Your task to perform on an android device: Search for the best movies of 2019  Image 0: 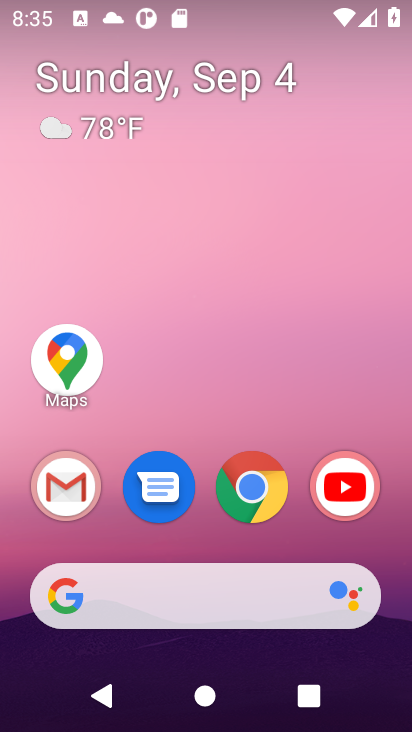
Step 0: click (243, 601)
Your task to perform on an android device: Search for the best movies of 2019  Image 1: 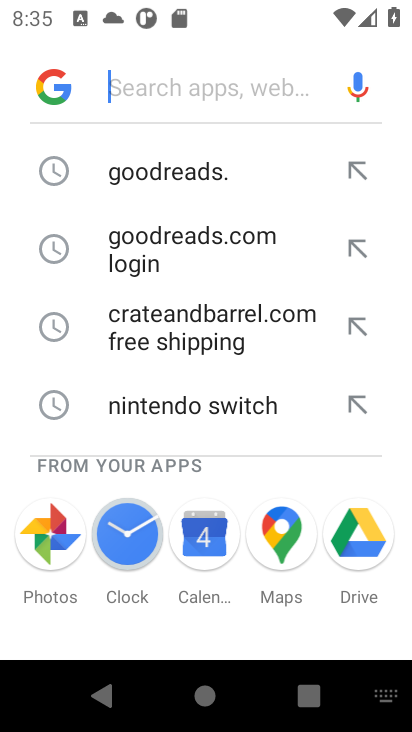
Step 1: type " best movies of 2019"
Your task to perform on an android device: Search for the best movies of 2019  Image 2: 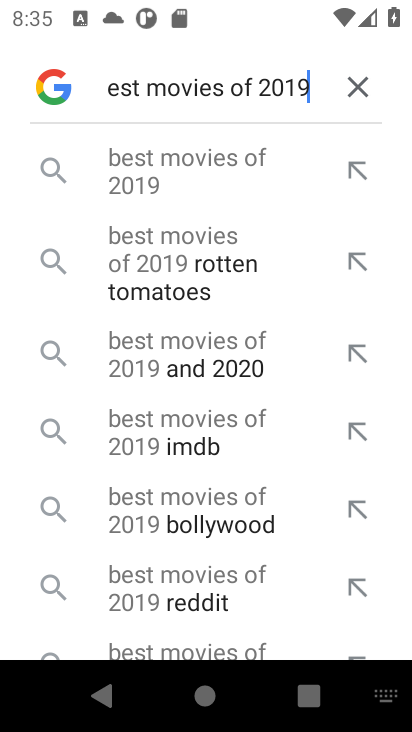
Step 2: click (167, 161)
Your task to perform on an android device: Search for the best movies of 2019  Image 3: 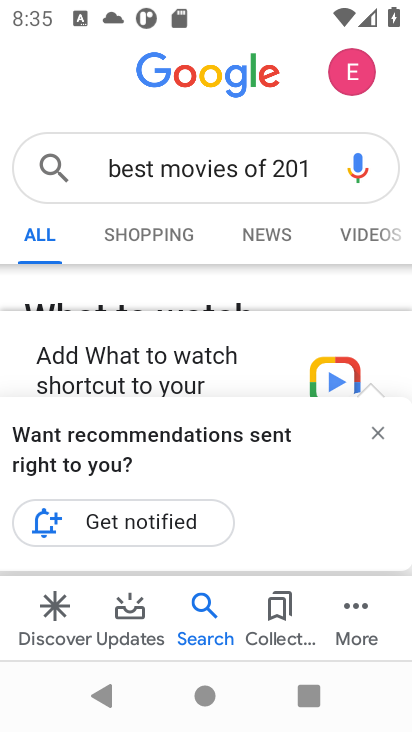
Step 3: click (377, 435)
Your task to perform on an android device: Search for the best movies of 2019  Image 4: 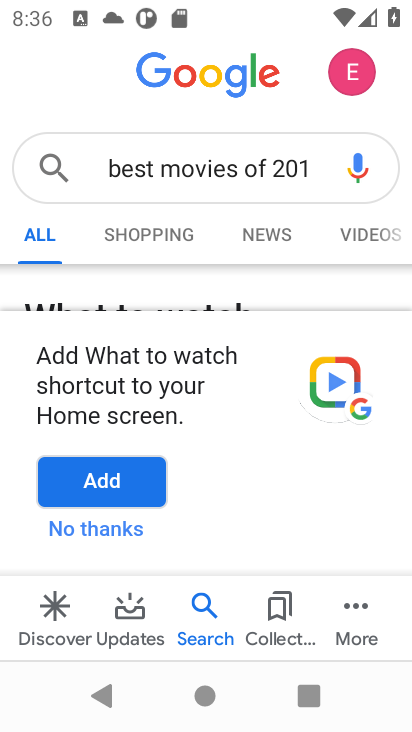
Step 4: click (104, 532)
Your task to perform on an android device: Search for the best movies of 2019  Image 5: 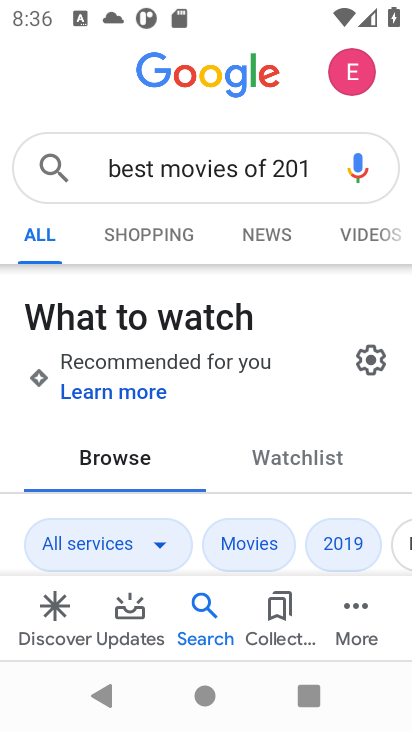
Step 5: task complete